Your task to perform on an android device: install app "The Home Depot" Image 0: 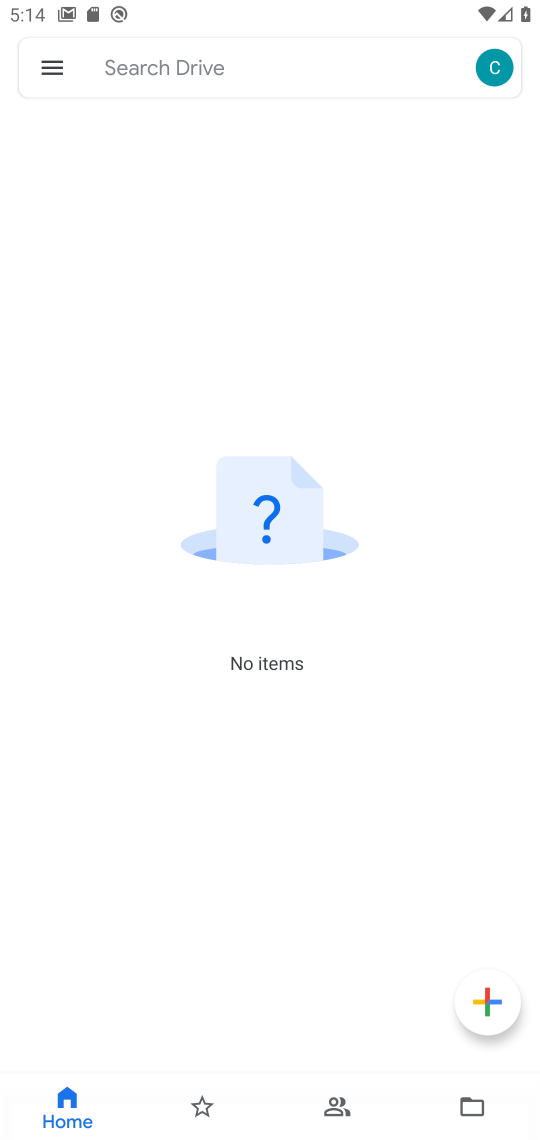
Step 0: press home button
Your task to perform on an android device: install app "The Home Depot" Image 1: 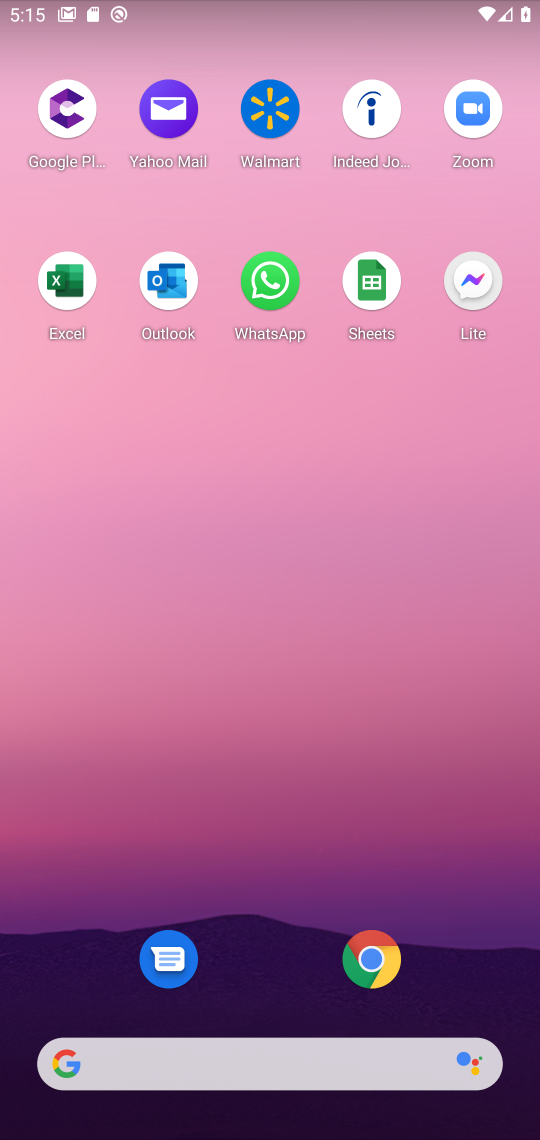
Step 1: drag from (231, 950) to (231, 608)
Your task to perform on an android device: install app "The Home Depot" Image 2: 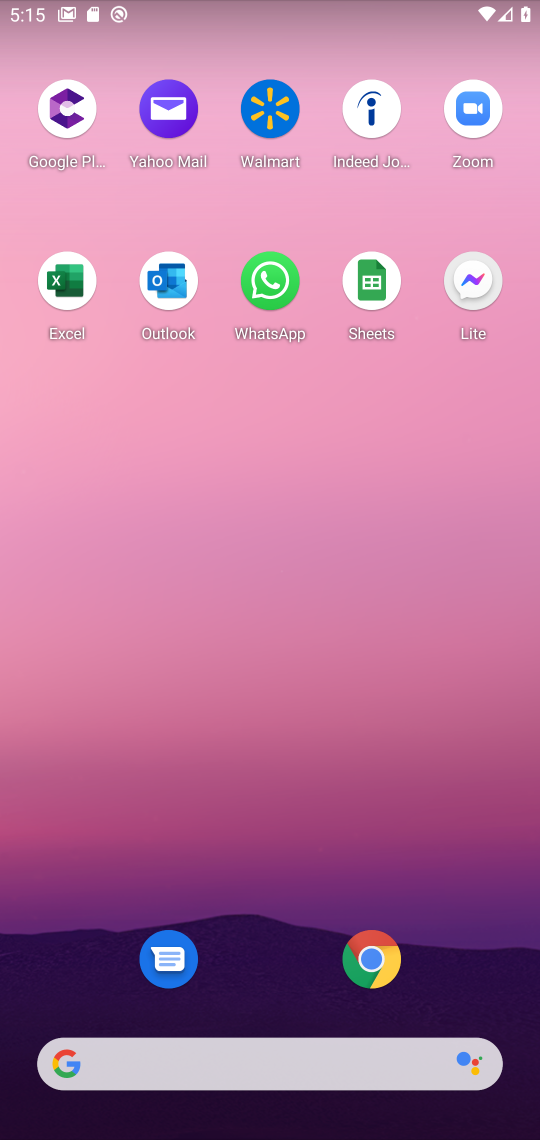
Step 2: drag from (227, 1035) to (218, 499)
Your task to perform on an android device: install app "The Home Depot" Image 3: 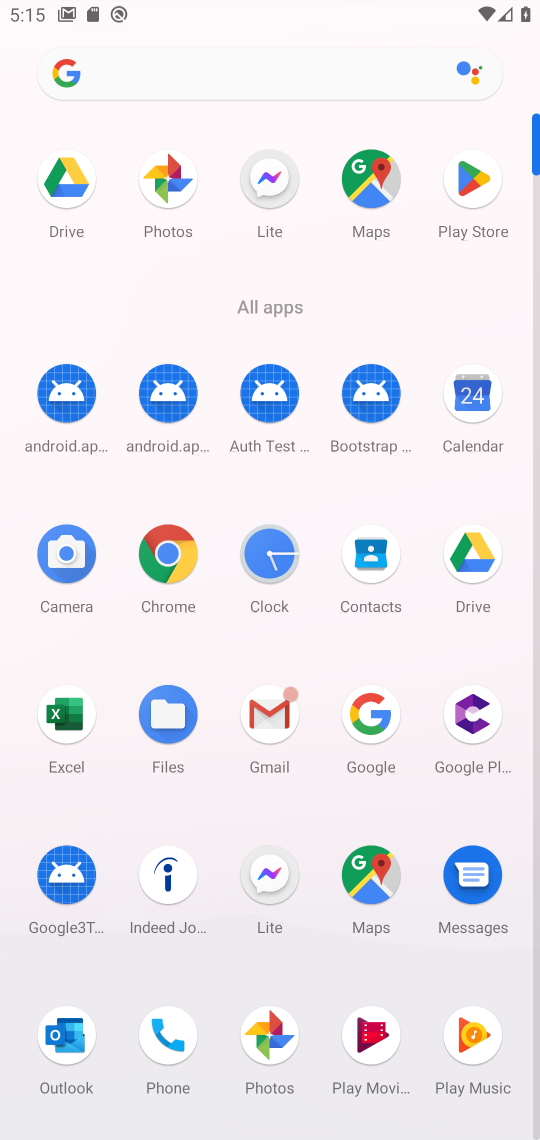
Step 3: click (466, 173)
Your task to perform on an android device: install app "The Home Depot" Image 4: 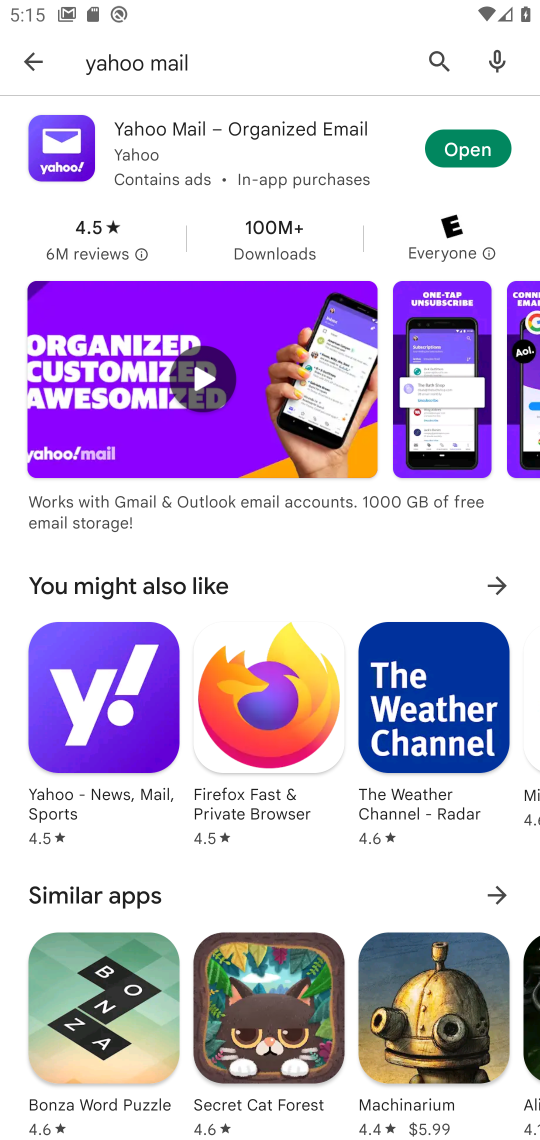
Step 4: type "The Home Depot"
Your task to perform on an android device: install app "The Home Depot" Image 5: 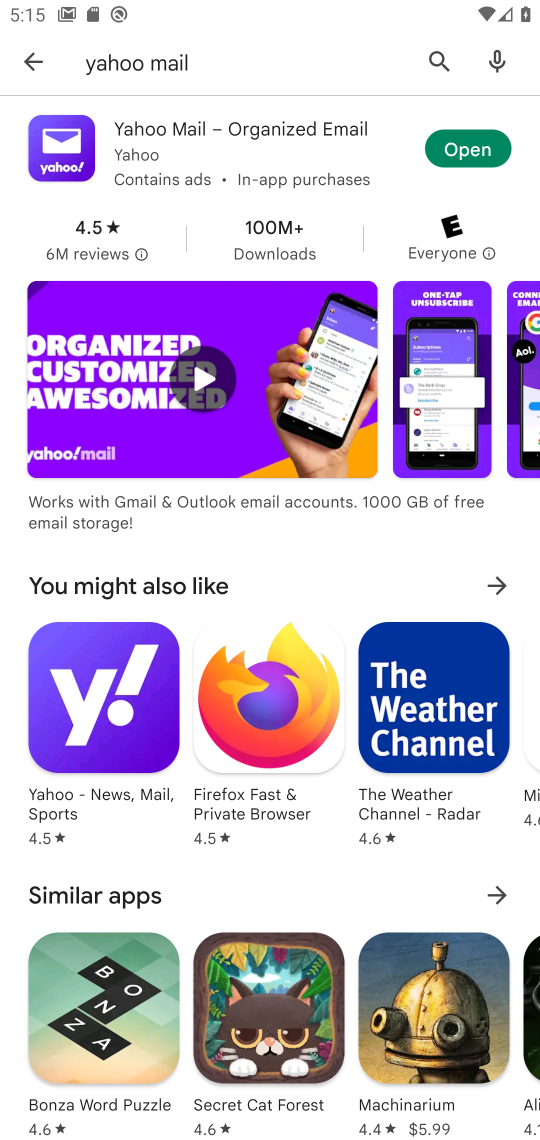
Step 5: click (434, 55)
Your task to perform on an android device: install app "The Home Depot" Image 6: 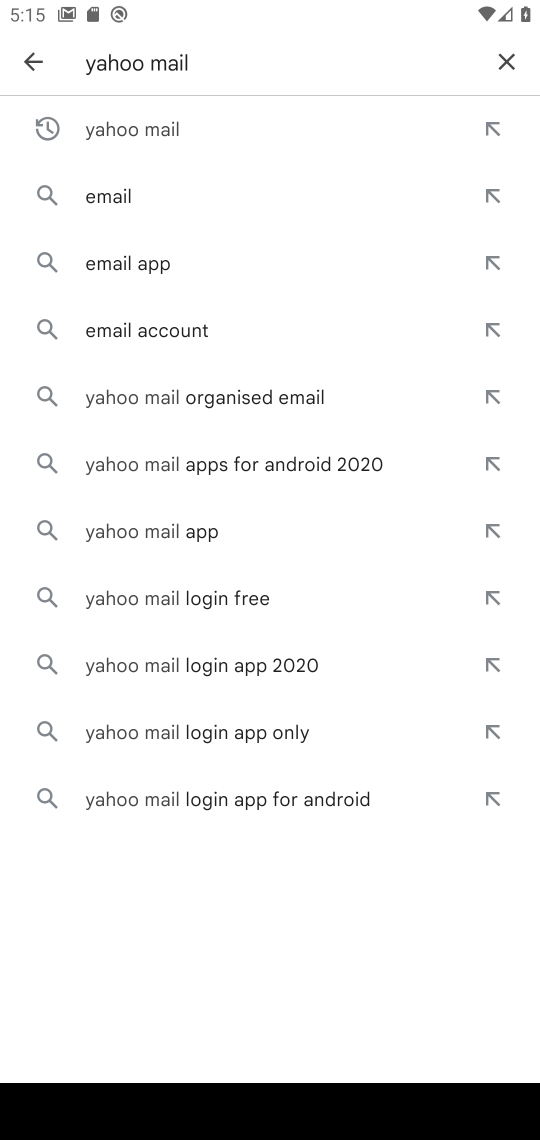
Step 6: click (504, 62)
Your task to perform on an android device: install app "The Home Depot" Image 7: 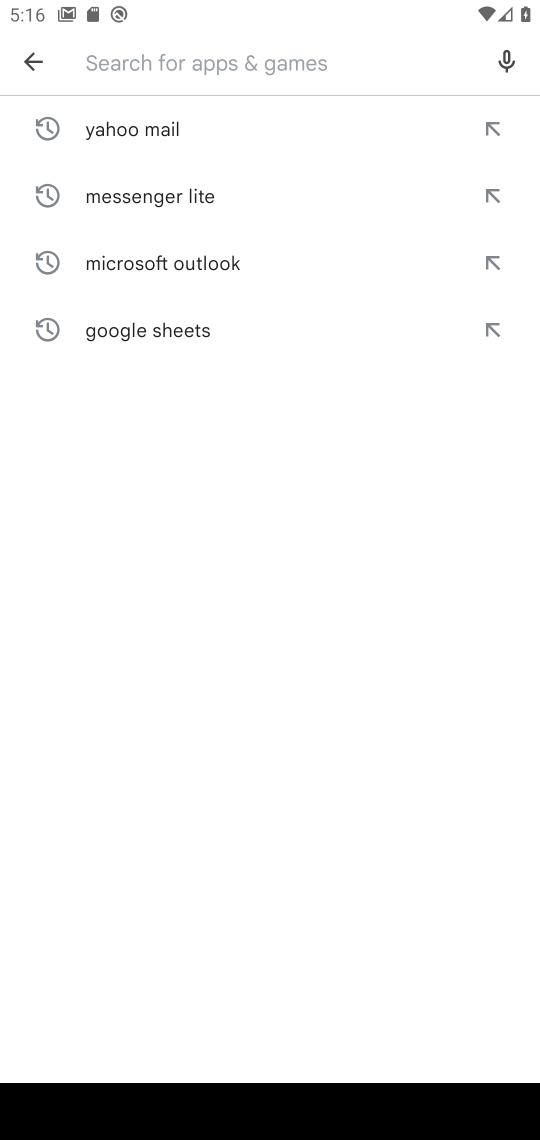
Step 7: type "The Home Depot"
Your task to perform on an android device: install app "The Home Depot" Image 8: 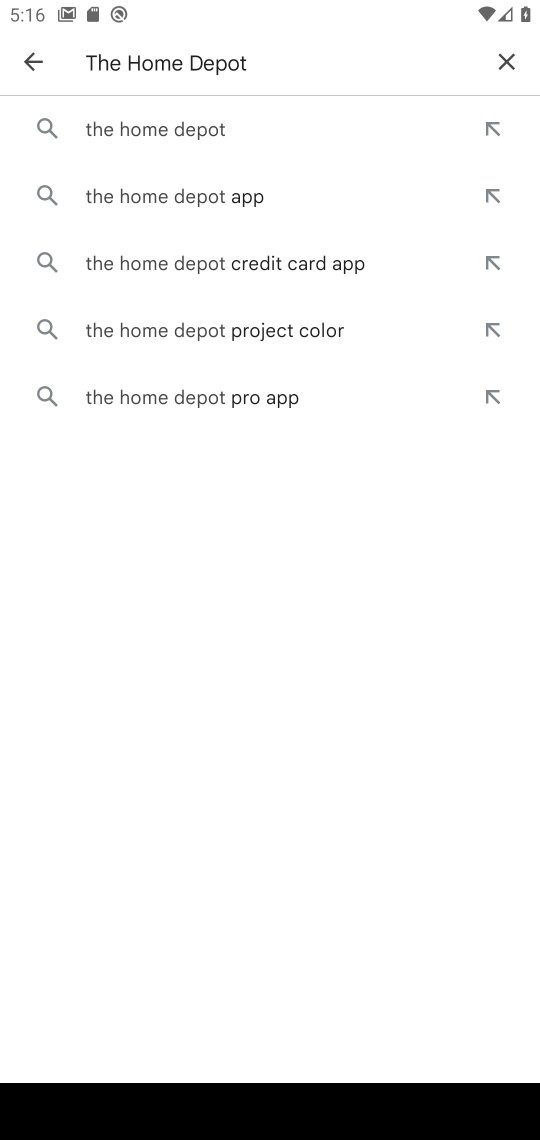
Step 8: click (133, 131)
Your task to perform on an android device: install app "The Home Depot" Image 9: 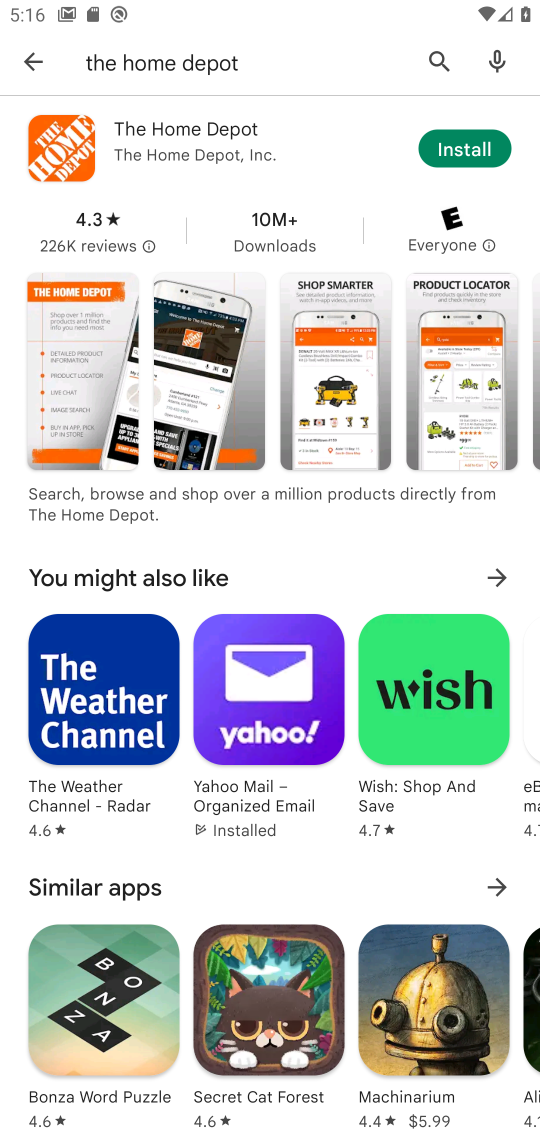
Step 9: click (436, 149)
Your task to perform on an android device: install app "The Home Depot" Image 10: 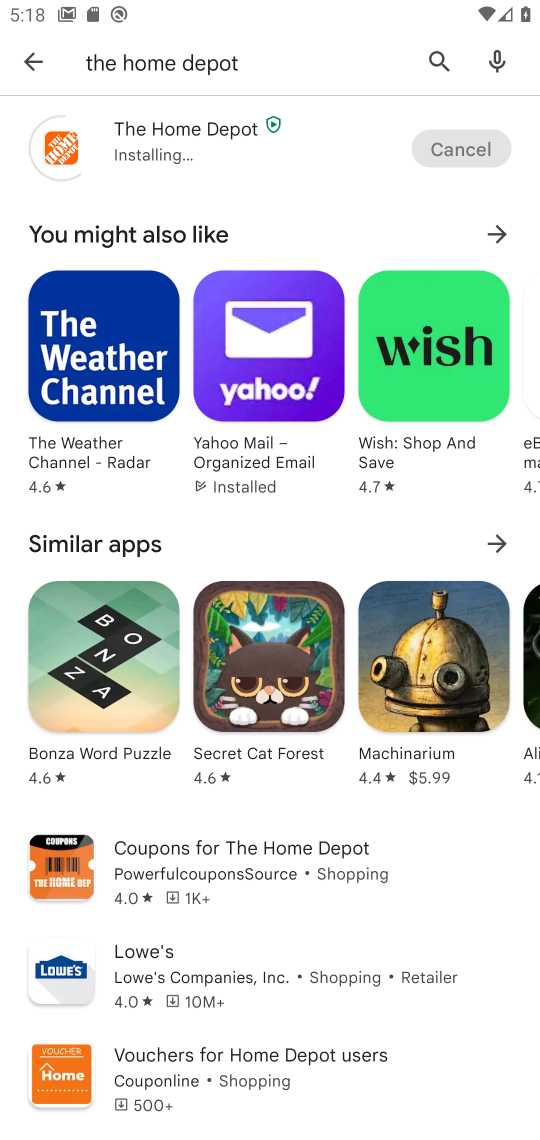
Step 10: task complete